Your task to perform on an android device: Go to CNN.com Image 0: 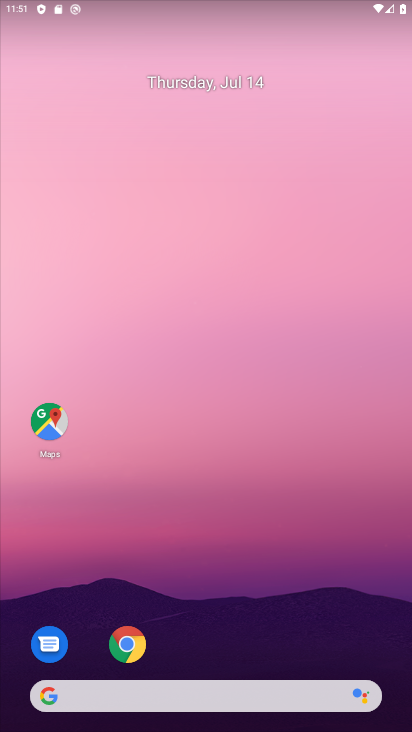
Step 0: click (129, 646)
Your task to perform on an android device: Go to CNN.com Image 1: 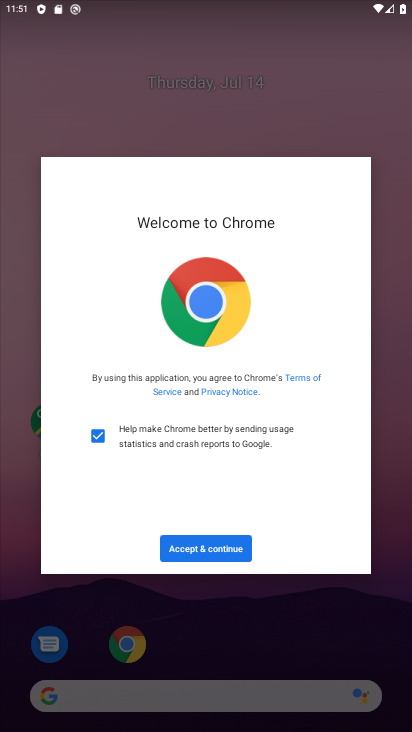
Step 1: click (212, 555)
Your task to perform on an android device: Go to CNN.com Image 2: 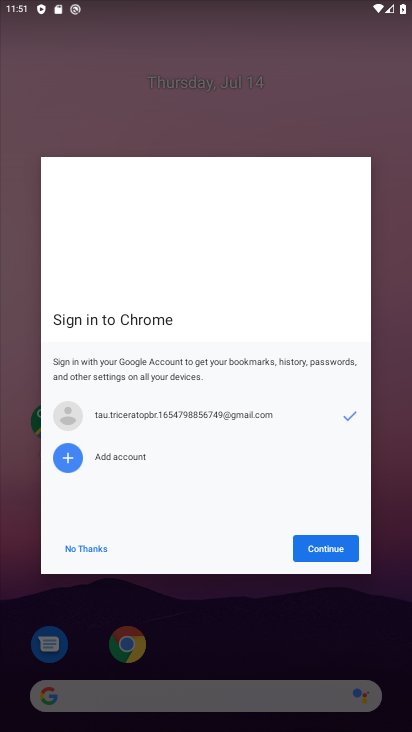
Step 2: click (344, 545)
Your task to perform on an android device: Go to CNN.com Image 3: 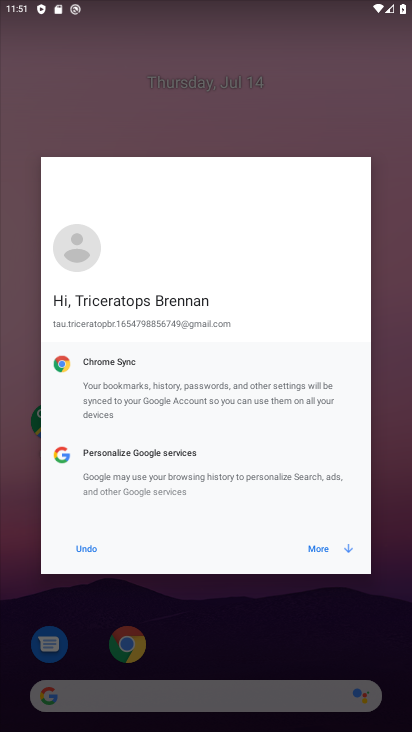
Step 3: click (315, 548)
Your task to perform on an android device: Go to CNN.com Image 4: 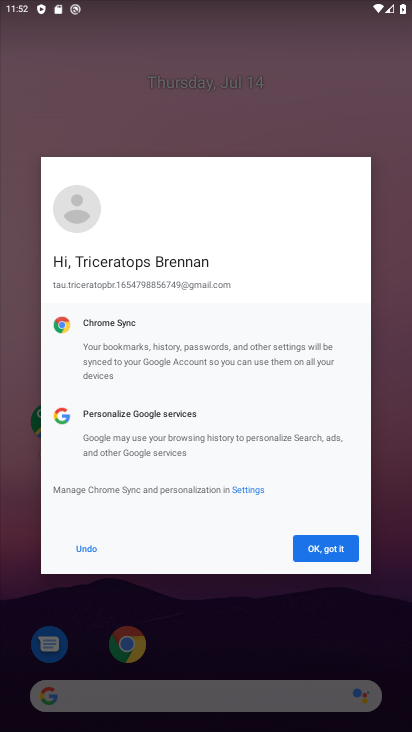
Step 4: click (313, 544)
Your task to perform on an android device: Go to CNN.com Image 5: 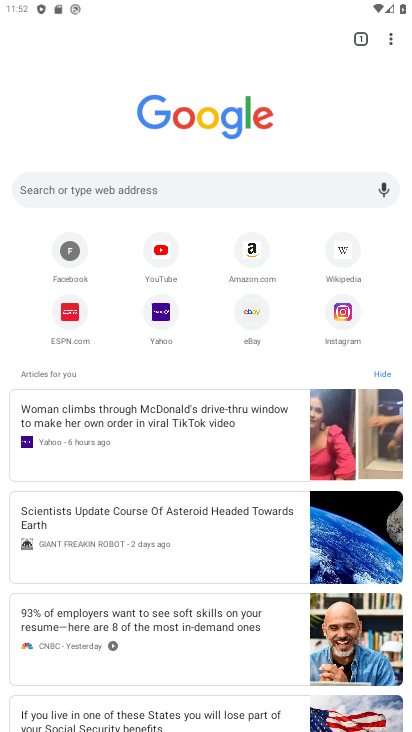
Step 5: click (208, 189)
Your task to perform on an android device: Go to CNN.com Image 6: 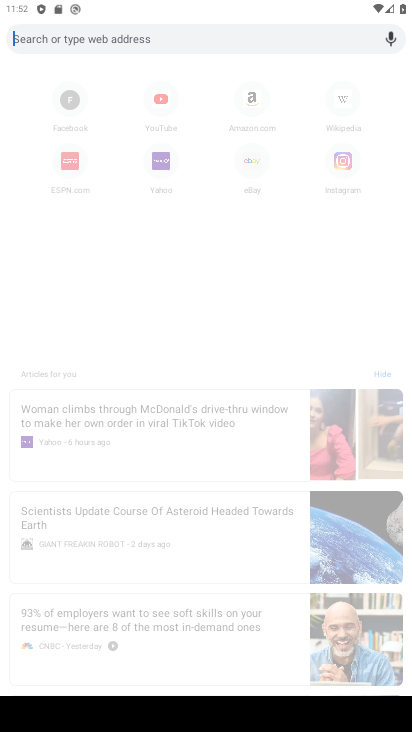
Step 6: type "CNN.com"
Your task to perform on an android device: Go to CNN.com Image 7: 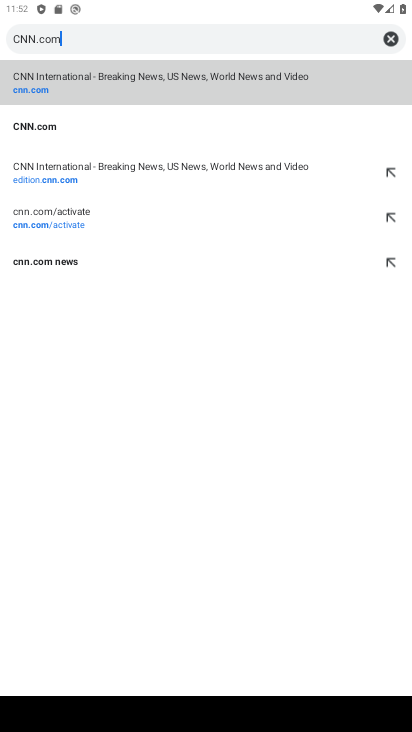
Step 7: click (87, 73)
Your task to perform on an android device: Go to CNN.com Image 8: 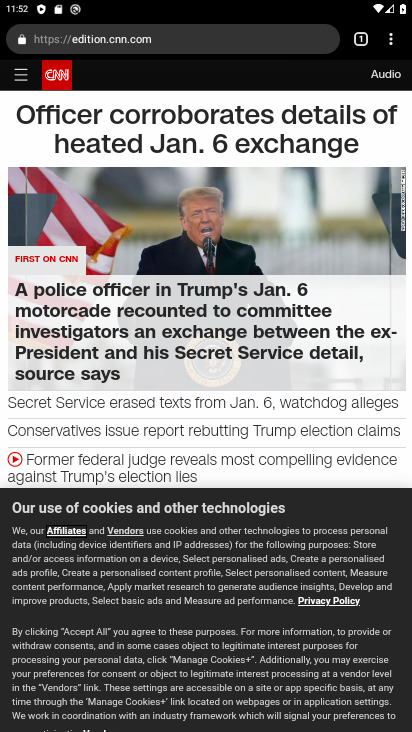
Step 8: task complete